Your task to perform on an android device: check android version Image 0: 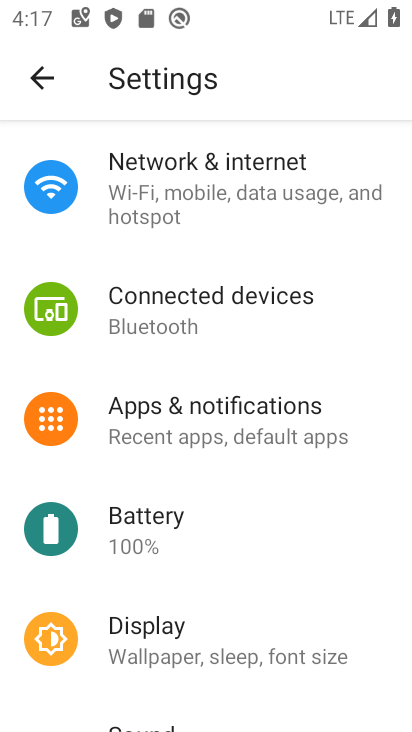
Step 0: press home button
Your task to perform on an android device: check android version Image 1: 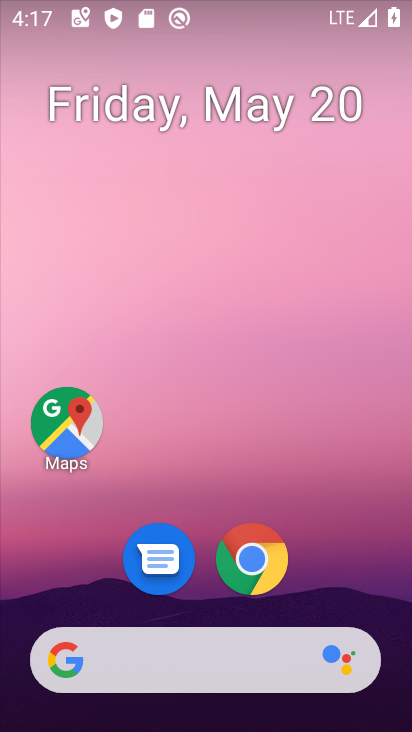
Step 1: drag from (146, 621) to (225, 109)
Your task to perform on an android device: check android version Image 2: 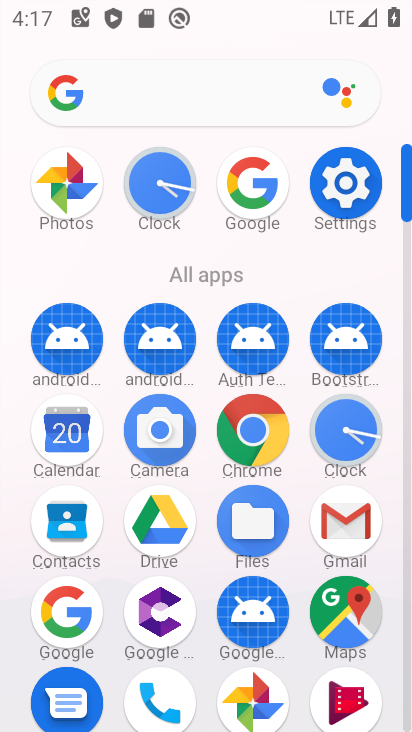
Step 2: click (348, 186)
Your task to perform on an android device: check android version Image 3: 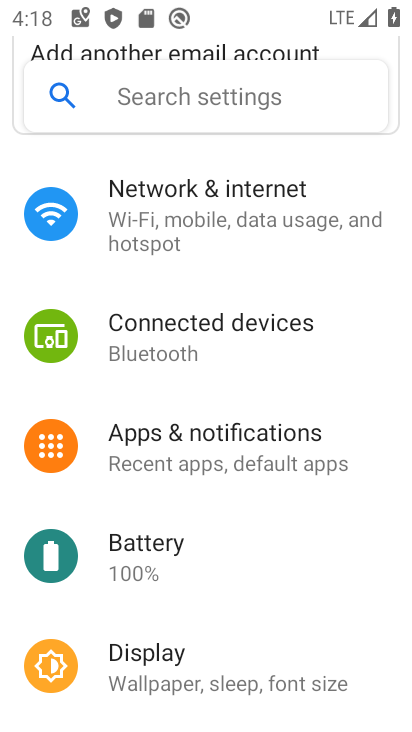
Step 3: drag from (213, 663) to (271, 235)
Your task to perform on an android device: check android version Image 4: 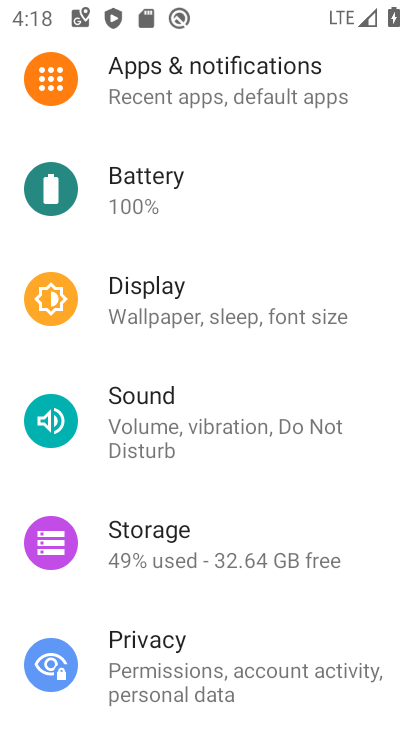
Step 4: drag from (214, 711) to (274, 276)
Your task to perform on an android device: check android version Image 5: 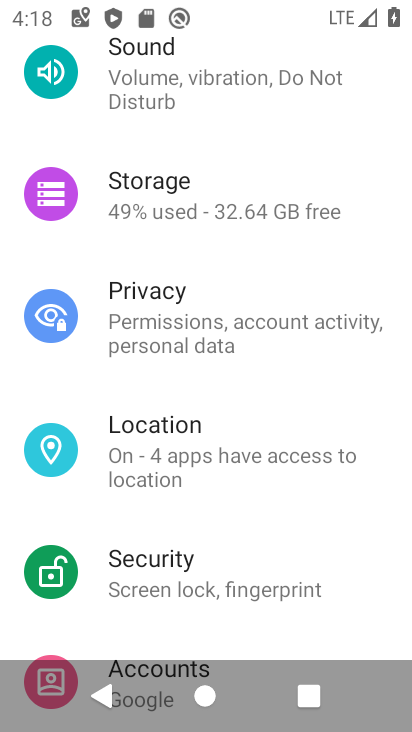
Step 5: drag from (204, 640) to (257, 217)
Your task to perform on an android device: check android version Image 6: 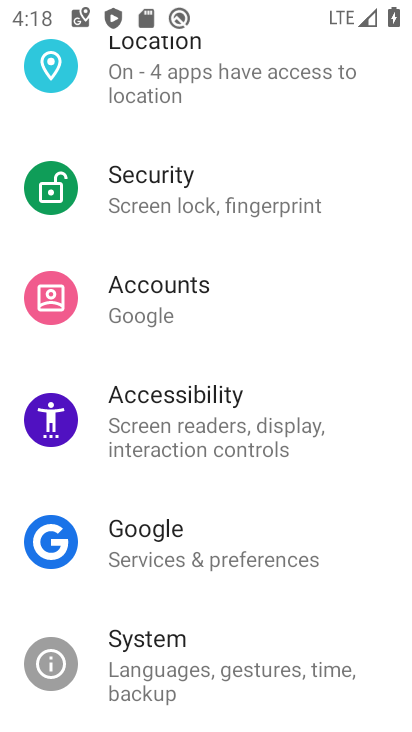
Step 6: drag from (157, 675) to (256, 276)
Your task to perform on an android device: check android version Image 7: 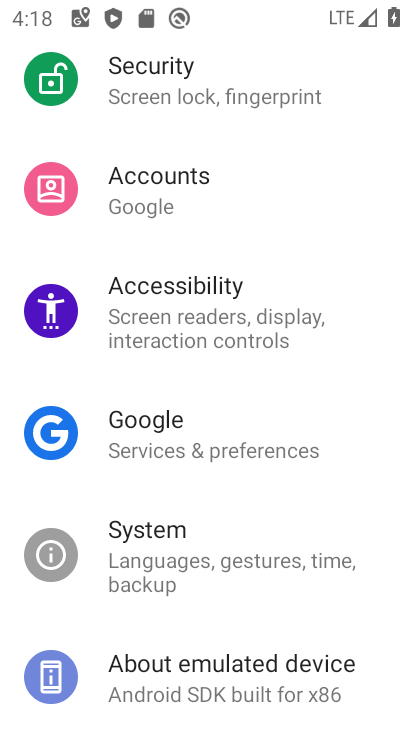
Step 7: click (178, 678)
Your task to perform on an android device: check android version Image 8: 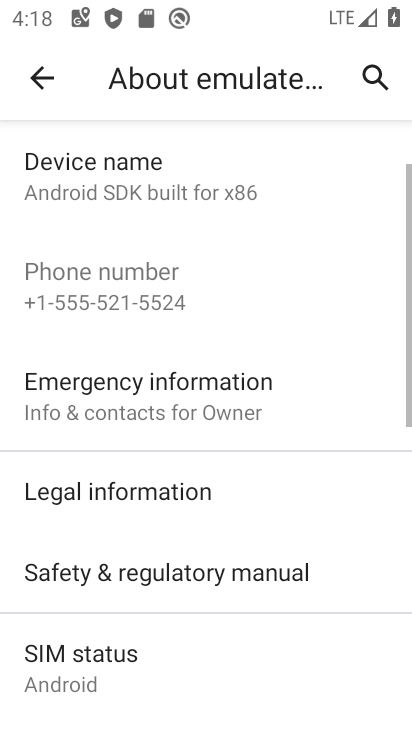
Step 8: drag from (116, 673) to (181, 259)
Your task to perform on an android device: check android version Image 9: 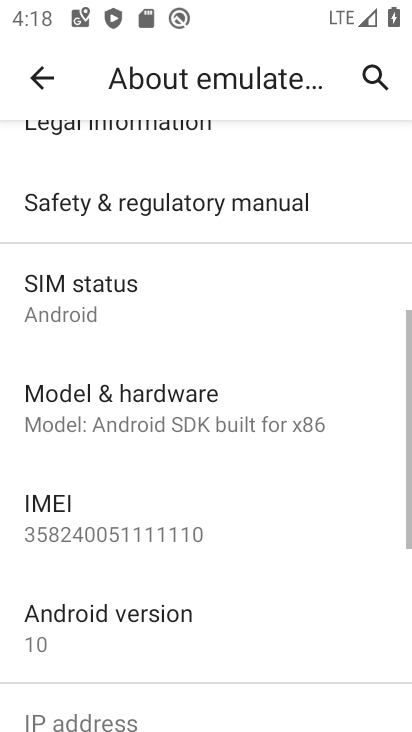
Step 9: click (131, 629)
Your task to perform on an android device: check android version Image 10: 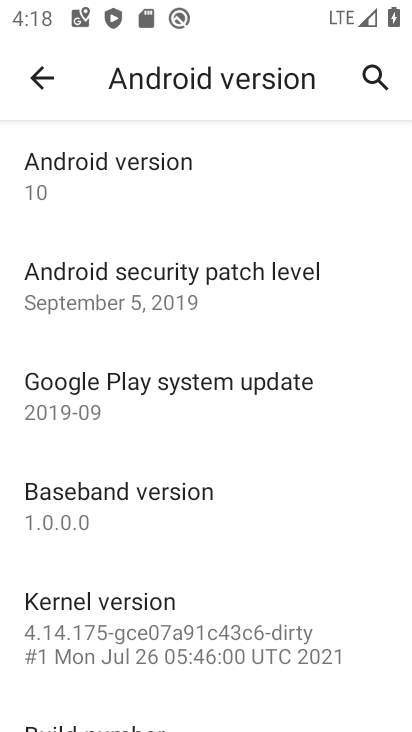
Step 10: task complete